Your task to perform on an android device: Open Yahoo.com Image 0: 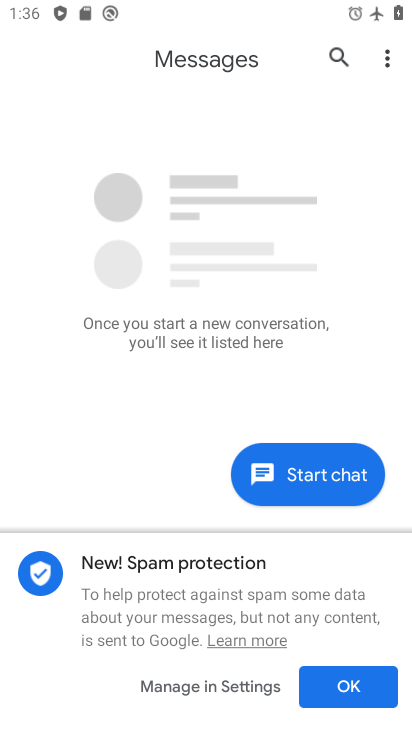
Step 0: press home button
Your task to perform on an android device: Open Yahoo.com Image 1: 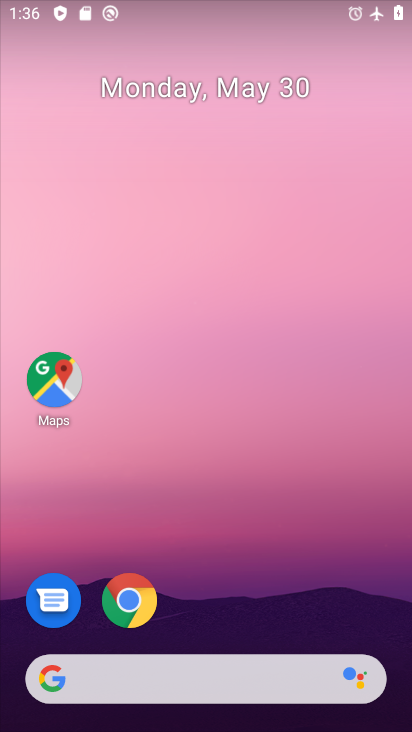
Step 1: click (135, 611)
Your task to perform on an android device: Open Yahoo.com Image 2: 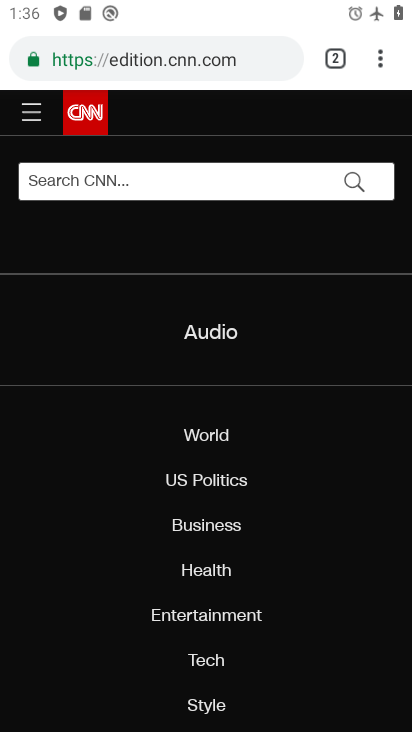
Step 2: click (332, 51)
Your task to perform on an android device: Open Yahoo.com Image 3: 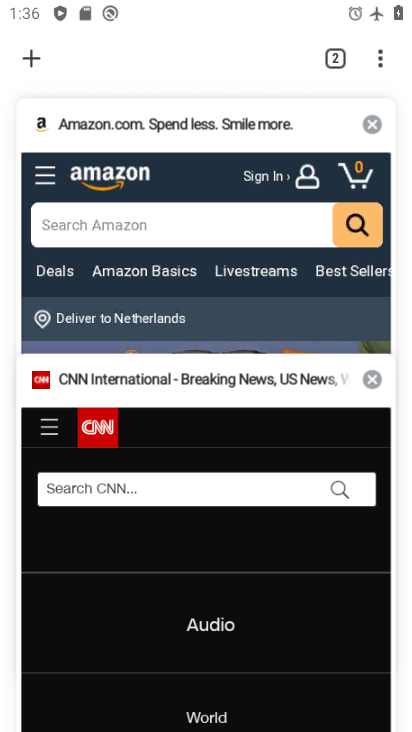
Step 3: click (20, 63)
Your task to perform on an android device: Open Yahoo.com Image 4: 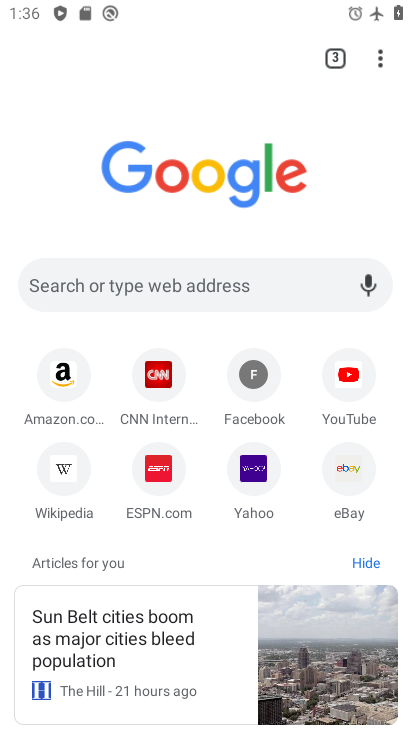
Step 4: click (264, 464)
Your task to perform on an android device: Open Yahoo.com Image 5: 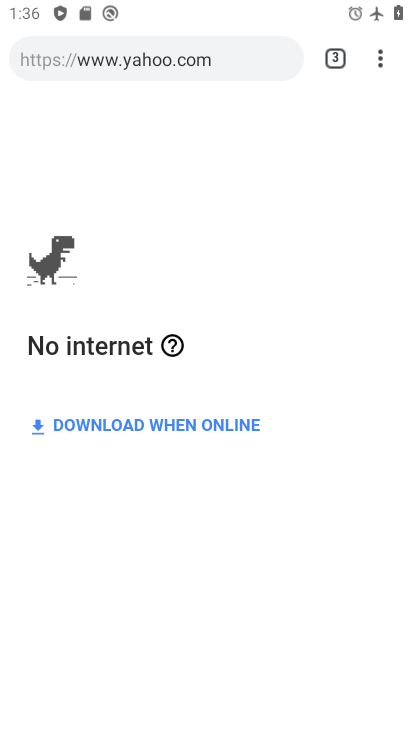
Step 5: task complete